Your task to perform on an android device: Open settings on Google Maps Image 0: 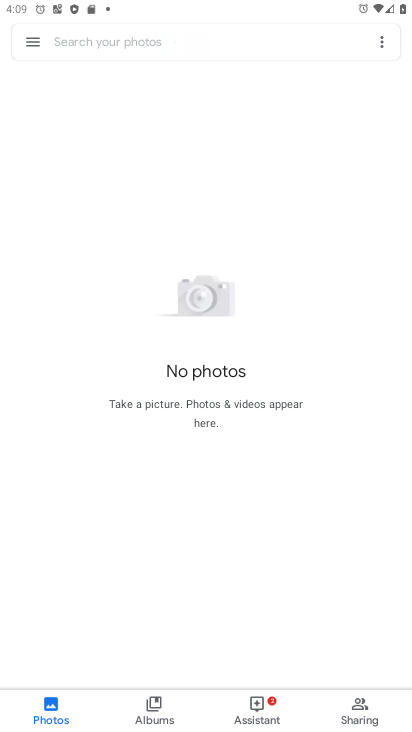
Step 0: press home button
Your task to perform on an android device: Open settings on Google Maps Image 1: 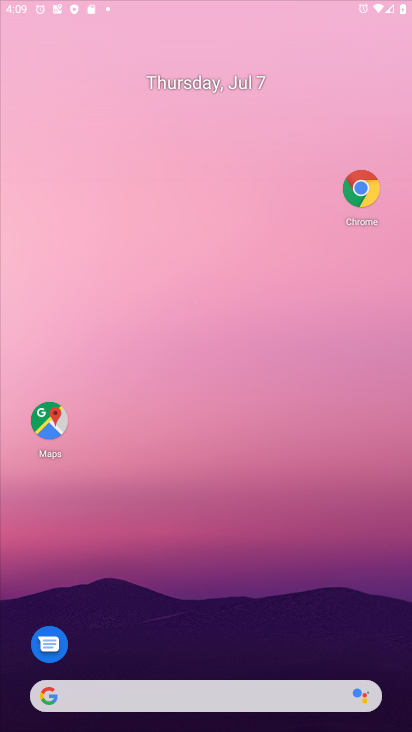
Step 1: drag from (217, 506) to (242, 0)
Your task to perform on an android device: Open settings on Google Maps Image 2: 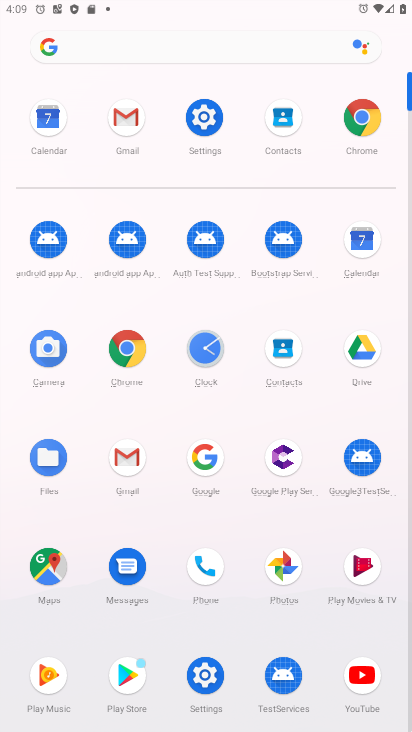
Step 2: click (379, 113)
Your task to perform on an android device: Open settings on Google Maps Image 3: 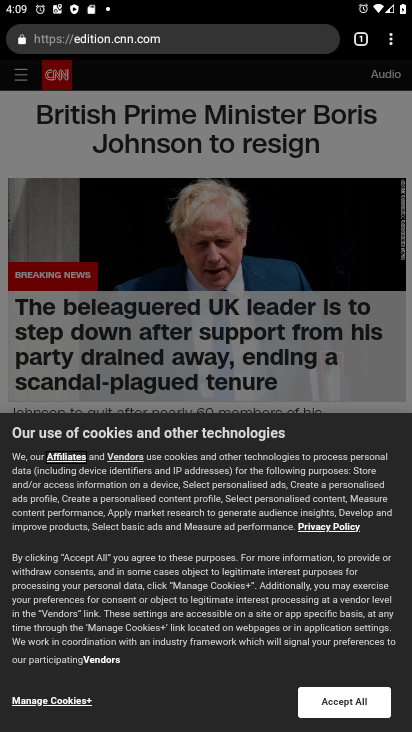
Step 3: press home button
Your task to perform on an android device: Open settings on Google Maps Image 4: 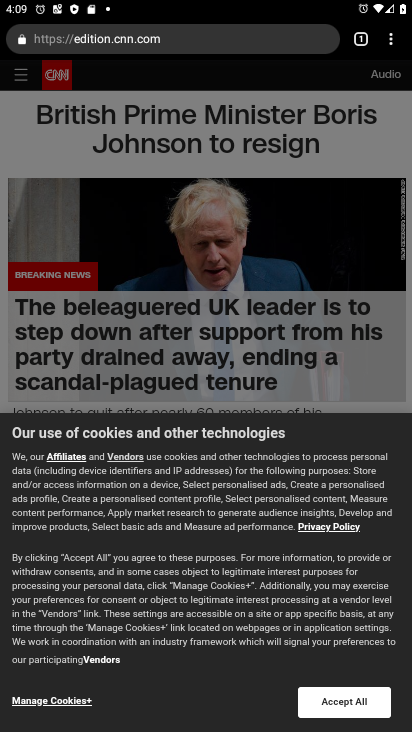
Step 4: drag from (272, 552) to (267, 3)
Your task to perform on an android device: Open settings on Google Maps Image 5: 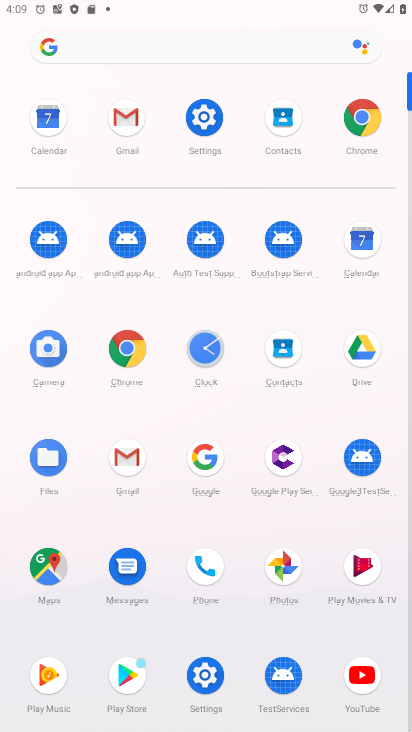
Step 5: click (57, 574)
Your task to perform on an android device: Open settings on Google Maps Image 6: 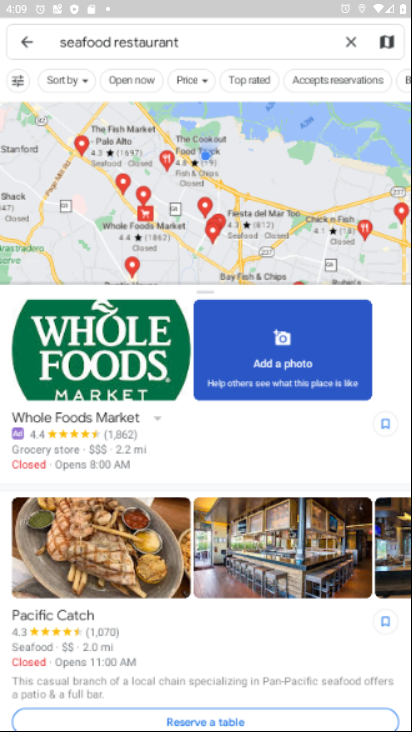
Step 6: click (31, 37)
Your task to perform on an android device: Open settings on Google Maps Image 7: 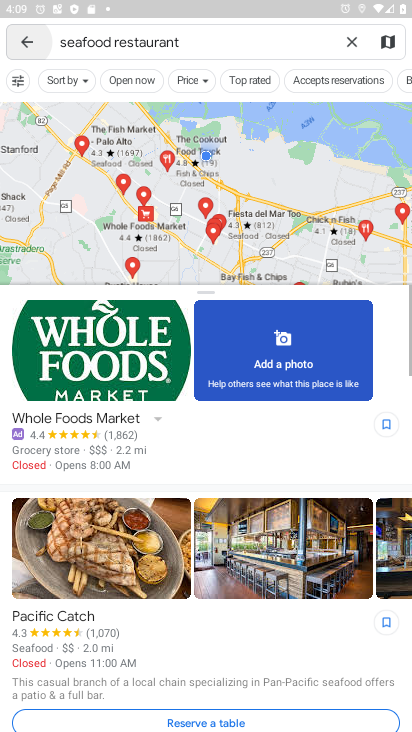
Step 7: click (31, 37)
Your task to perform on an android device: Open settings on Google Maps Image 8: 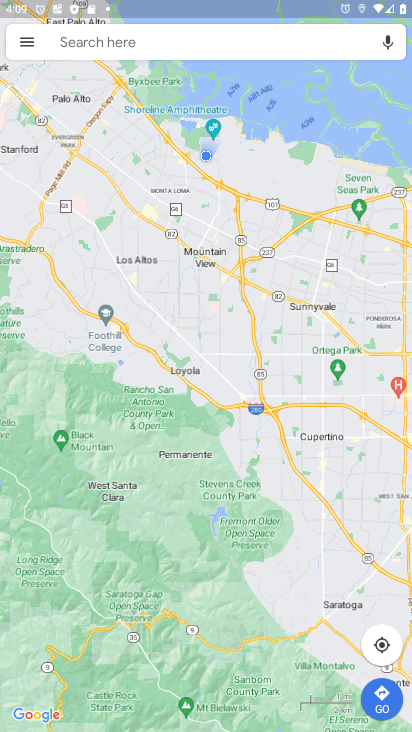
Step 8: click (31, 37)
Your task to perform on an android device: Open settings on Google Maps Image 9: 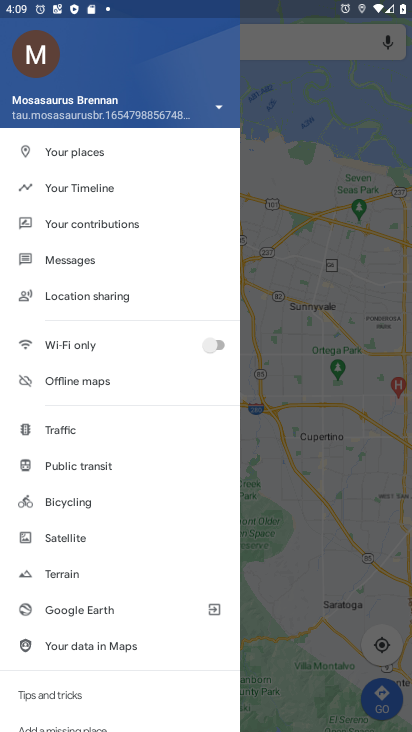
Step 9: drag from (66, 650) to (134, 168)
Your task to perform on an android device: Open settings on Google Maps Image 10: 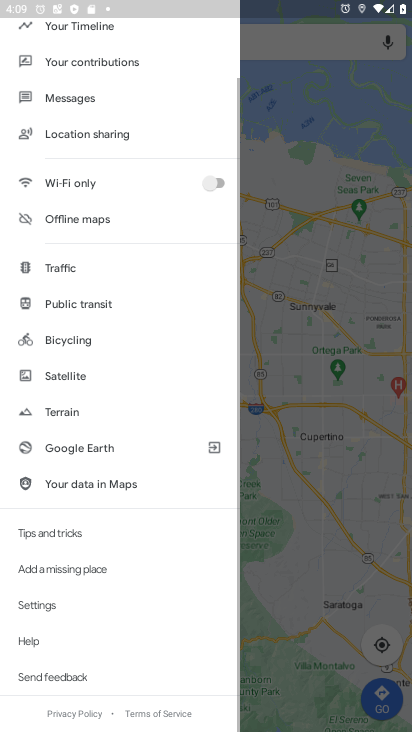
Step 10: click (58, 597)
Your task to perform on an android device: Open settings on Google Maps Image 11: 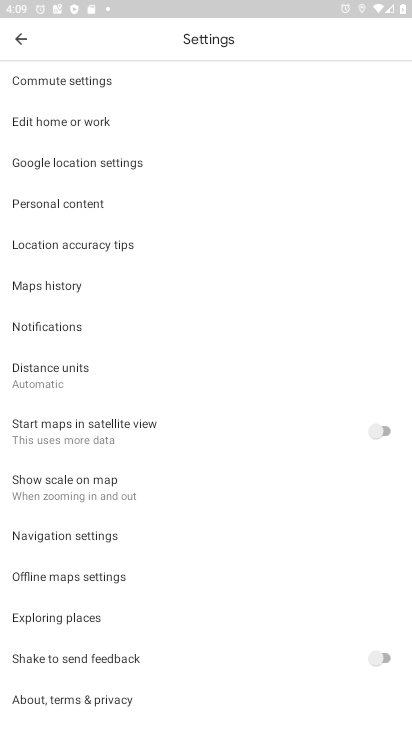
Step 11: task complete